Your task to perform on an android device: Show me popular videos on Youtube Image 0: 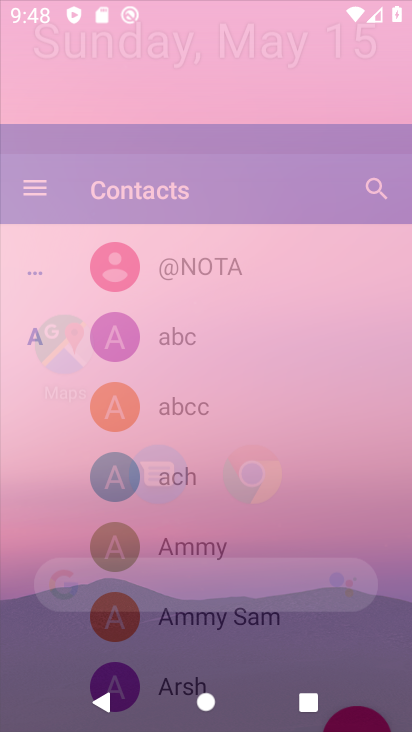
Step 0: drag from (153, 469) to (235, 148)
Your task to perform on an android device: Show me popular videos on Youtube Image 1: 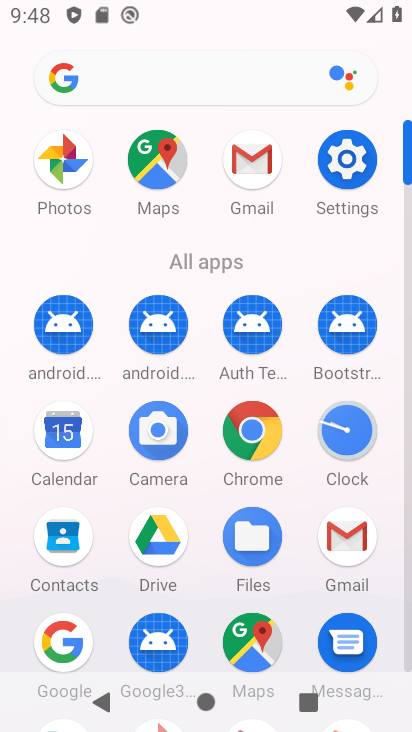
Step 1: drag from (199, 604) to (268, 311)
Your task to perform on an android device: Show me popular videos on Youtube Image 2: 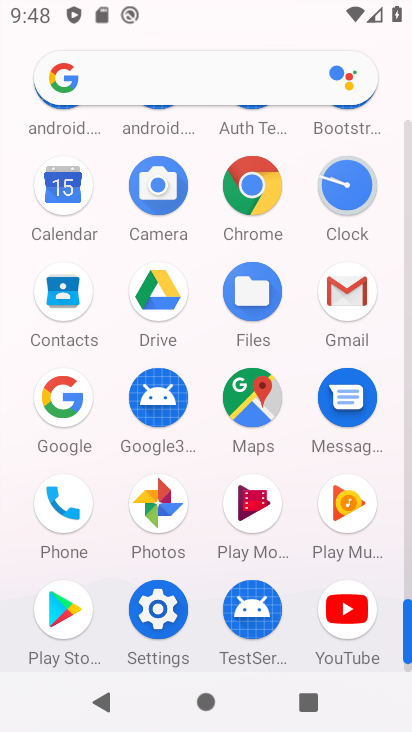
Step 2: click (351, 606)
Your task to perform on an android device: Show me popular videos on Youtube Image 3: 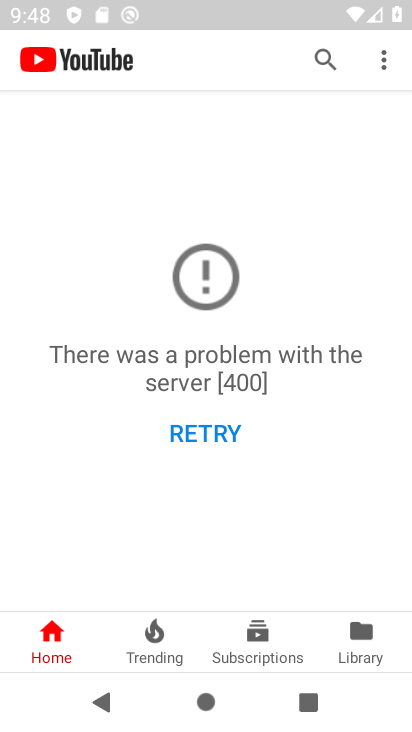
Step 3: click (154, 646)
Your task to perform on an android device: Show me popular videos on Youtube Image 4: 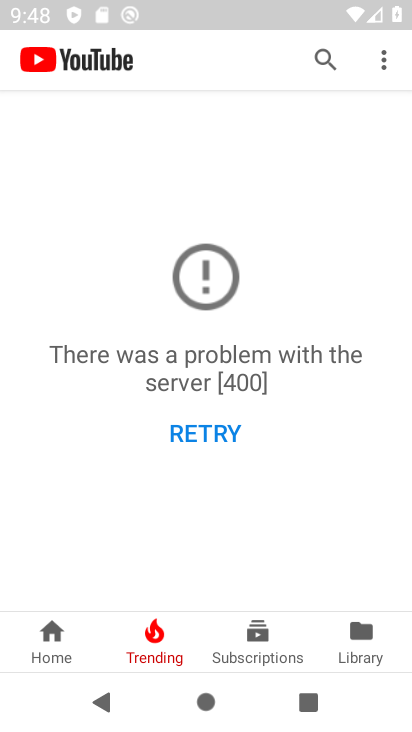
Step 4: task complete